Your task to perform on an android device: star an email in the gmail app Image 0: 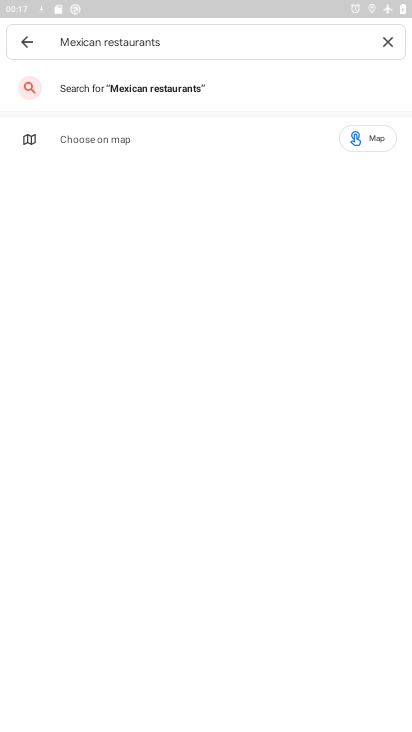
Step 0: press home button
Your task to perform on an android device: star an email in the gmail app Image 1: 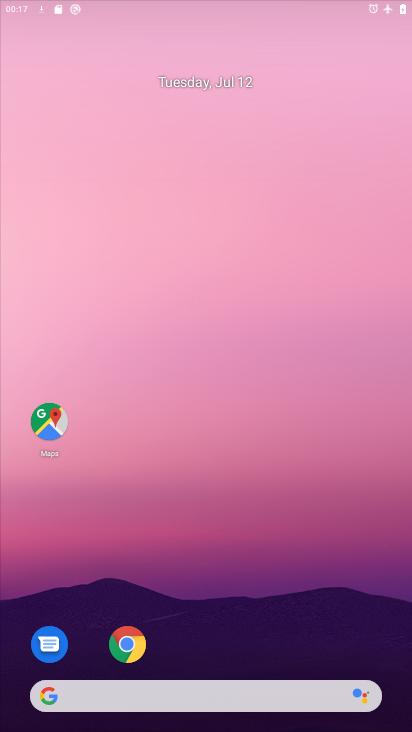
Step 1: drag from (287, 639) to (290, 254)
Your task to perform on an android device: star an email in the gmail app Image 2: 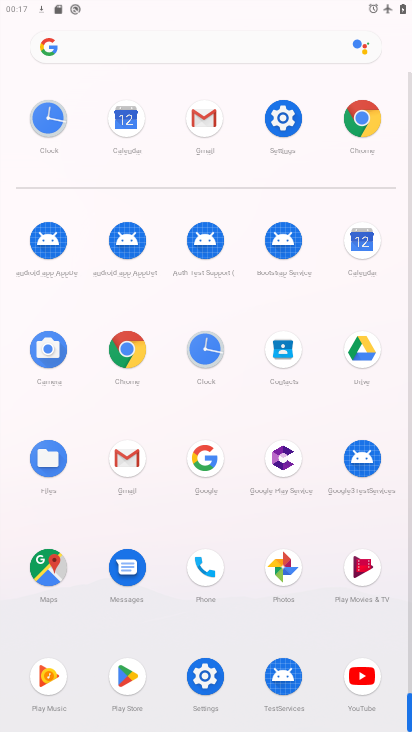
Step 2: click (199, 113)
Your task to perform on an android device: star an email in the gmail app Image 3: 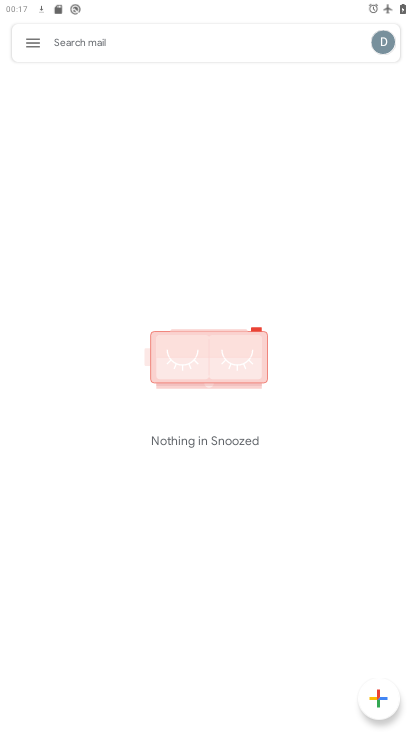
Step 3: click (25, 50)
Your task to perform on an android device: star an email in the gmail app Image 4: 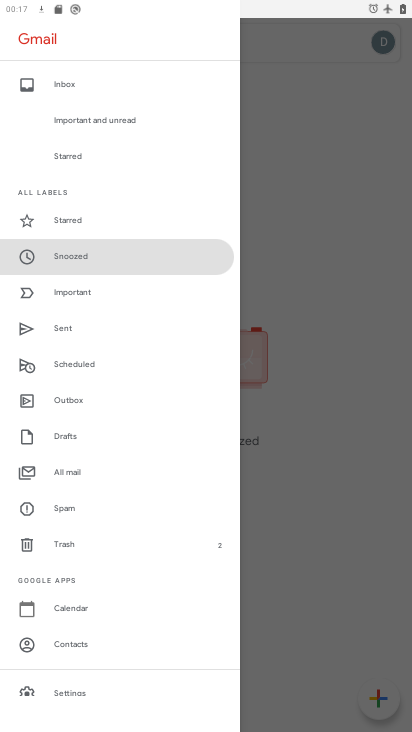
Step 4: click (43, 203)
Your task to perform on an android device: star an email in the gmail app Image 5: 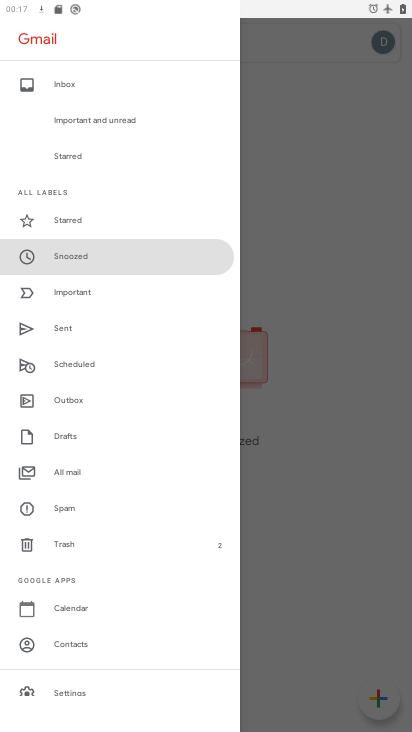
Step 5: click (47, 213)
Your task to perform on an android device: star an email in the gmail app Image 6: 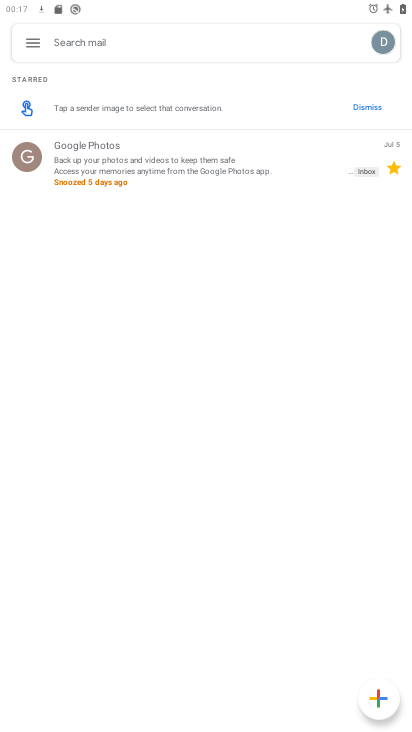
Step 6: task complete